Your task to perform on an android device: Go to eBay Image 0: 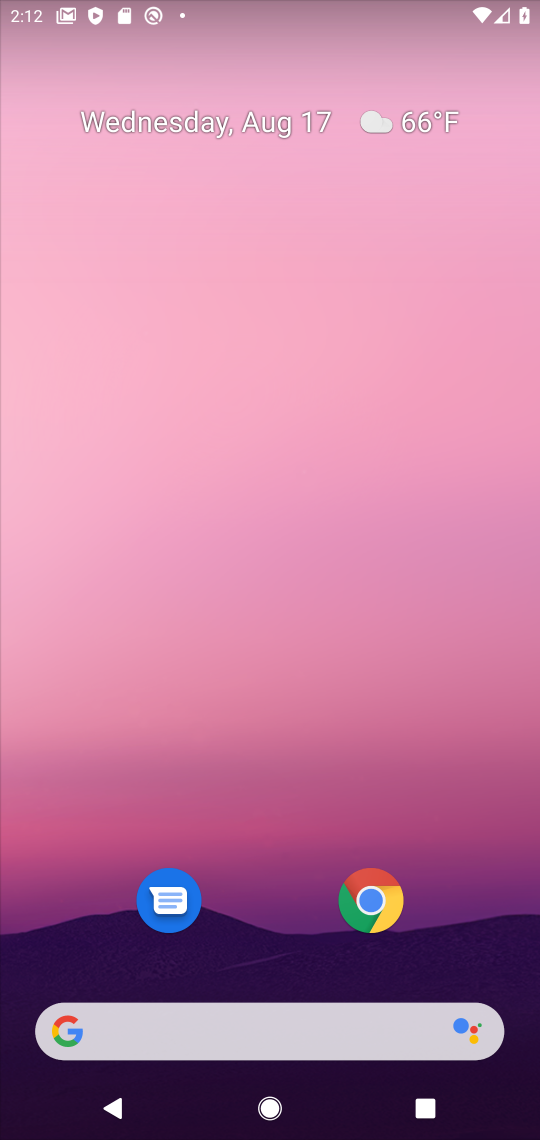
Step 0: press home button
Your task to perform on an android device: Go to eBay Image 1: 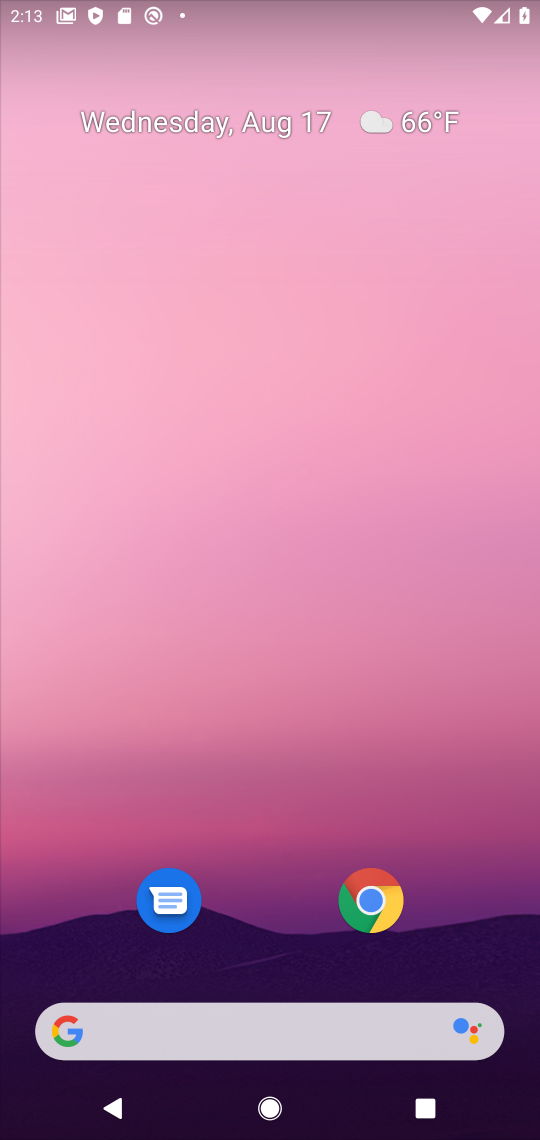
Step 1: click (355, 906)
Your task to perform on an android device: Go to eBay Image 2: 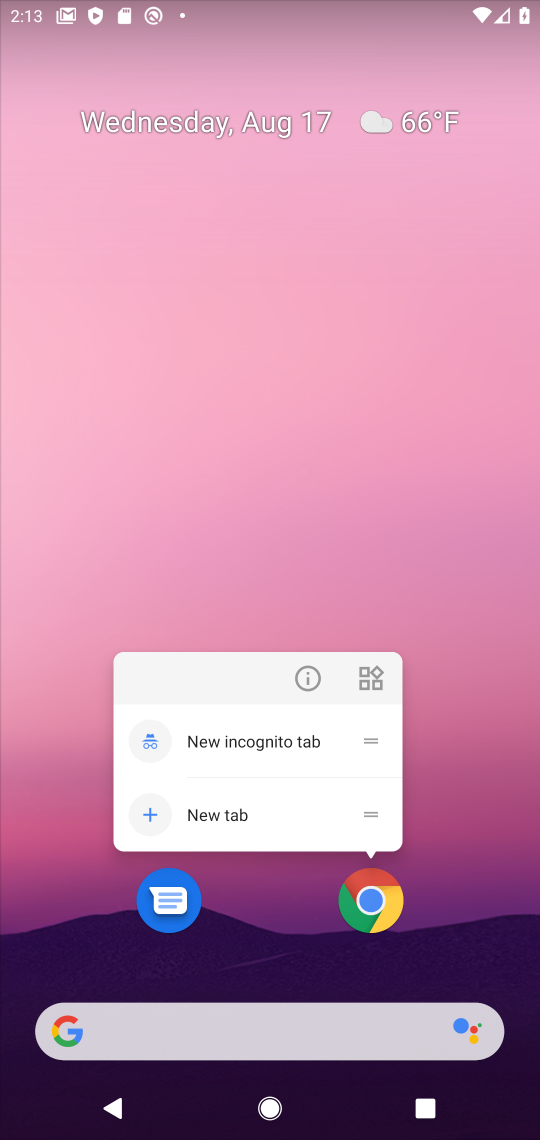
Step 2: click (364, 909)
Your task to perform on an android device: Go to eBay Image 3: 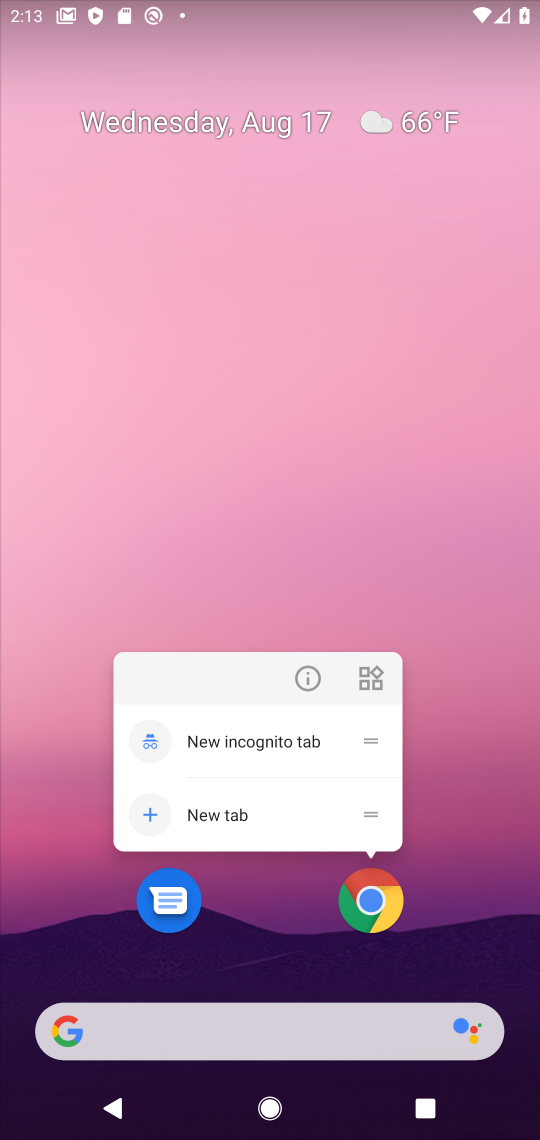
Step 3: click (364, 911)
Your task to perform on an android device: Go to eBay Image 4: 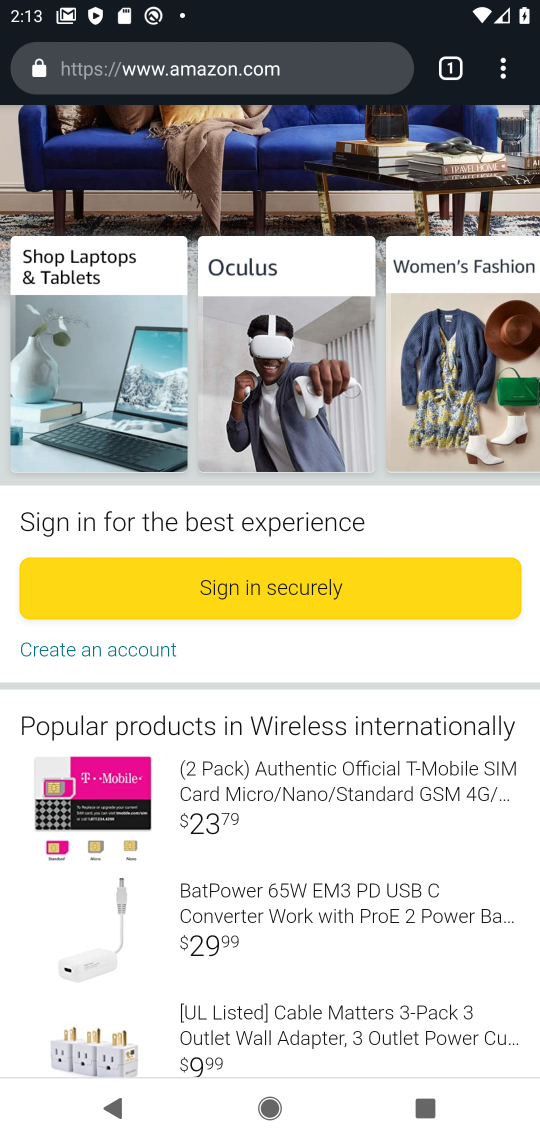
Step 4: drag from (502, 65) to (275, 214)
Your task to perform on an android device: Go to eBay Image 5: 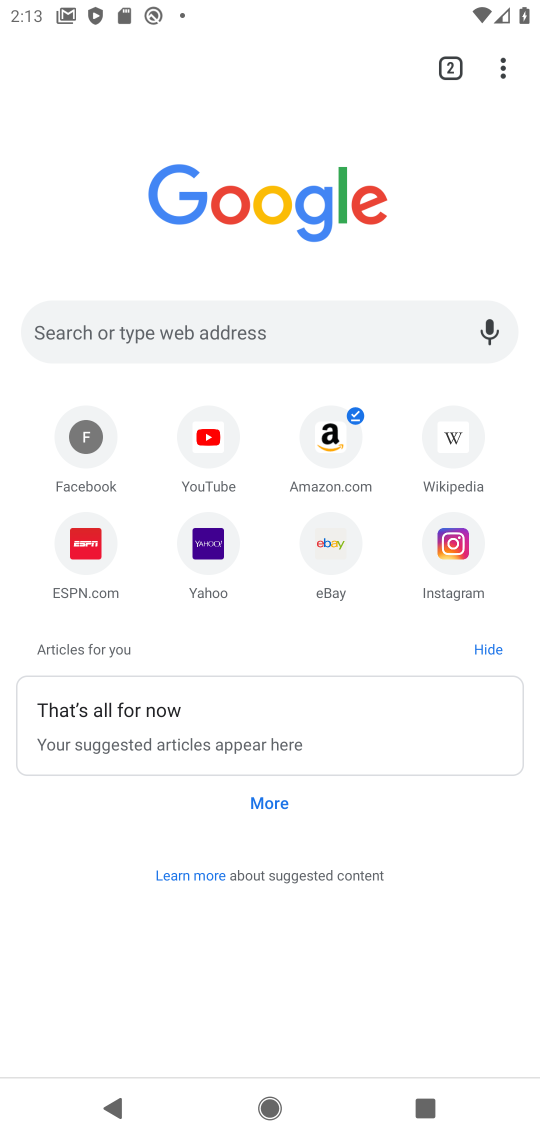
Step 5: click (336, 559)
Your task to perform on an android device: Go to eBay Image 6: 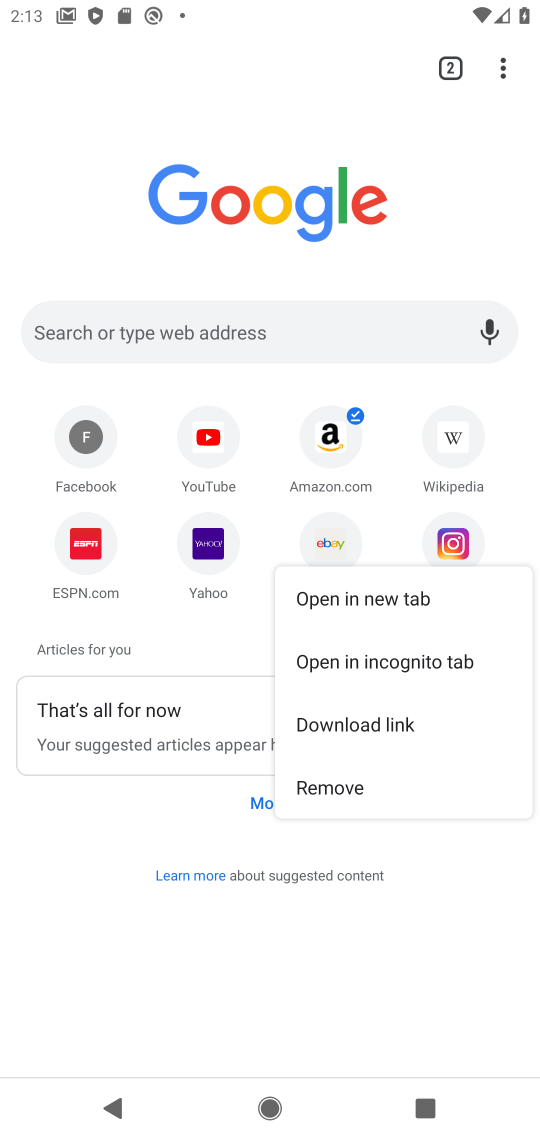
Step 6: click (333, 539)
Your task to perform on an android device: Go to eBay Image 7: 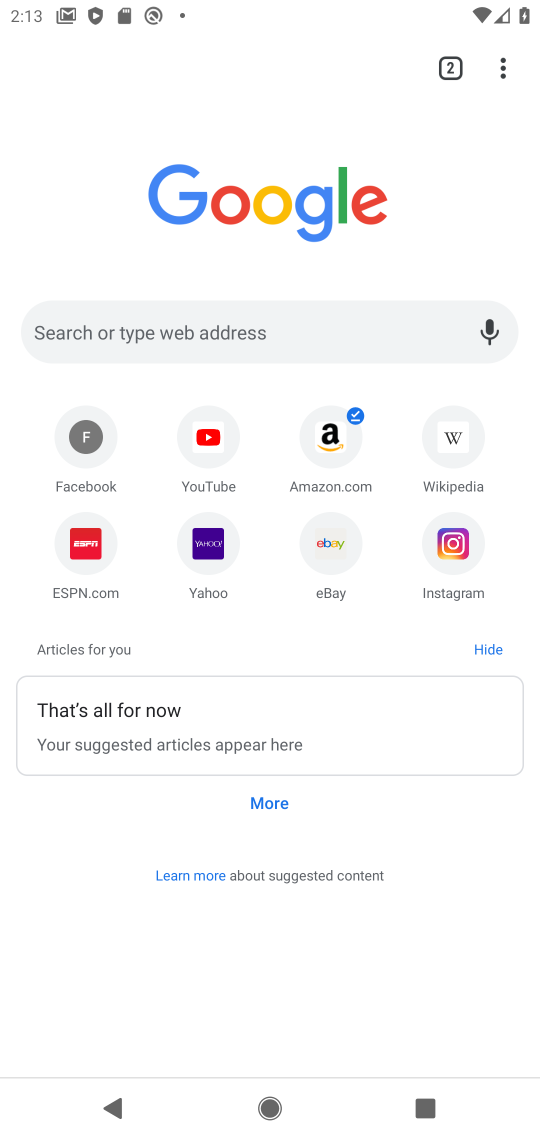
Step 7: click (323, 548)
Your task to perform on an android device: Go to eBay Image 8: 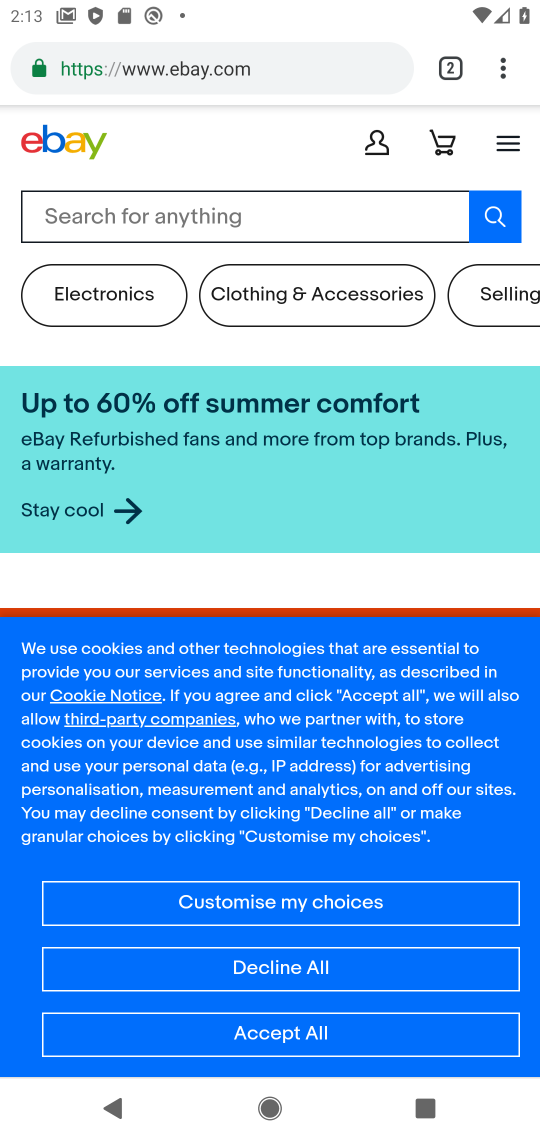
Step 8: task complete